Your task to perform on an android device: turn off translation in the chrome app Image 0: 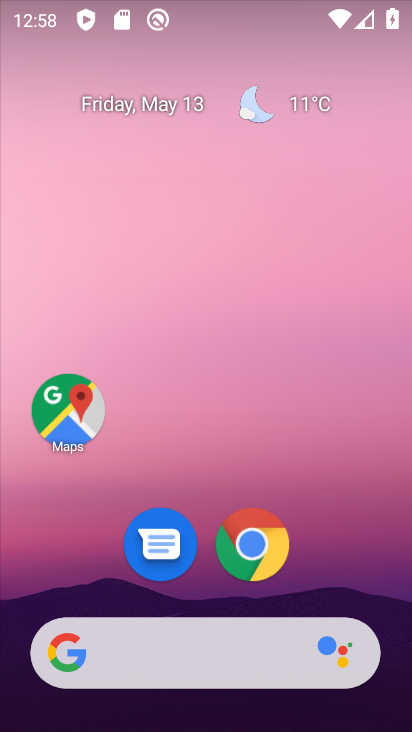
Step 0: click (245, 545)
Your task to perform on an android device: turn off translation in the chrome app Image 1: 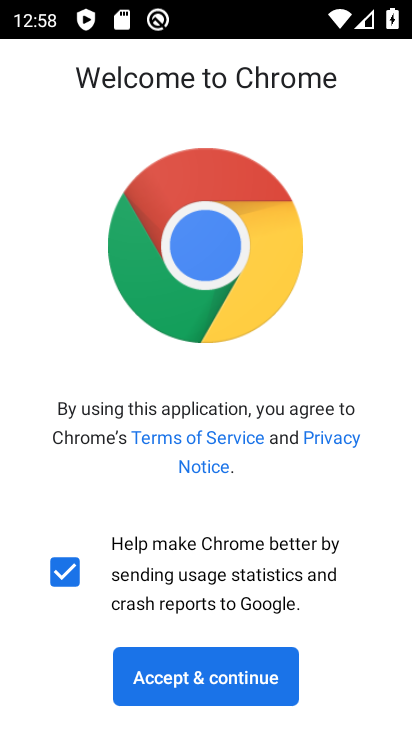
Step 1: click (239, 671)
Your task to perform on an android device: turn off translation in the chrome app Image 2: 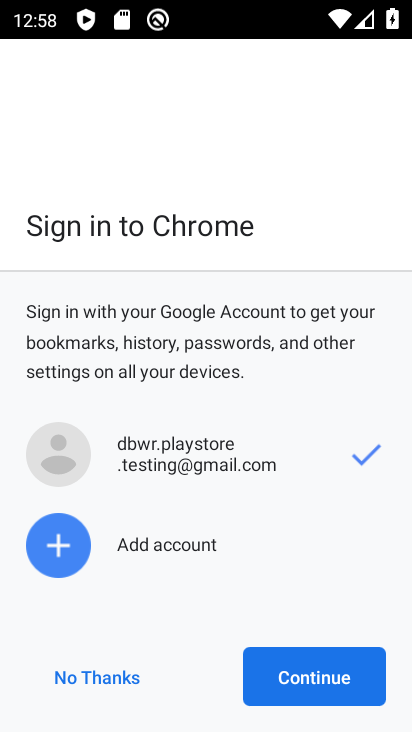
Step 2: click (345, 680)
Your task to perform on an android device: turn off translation in the chrome app Image 3: 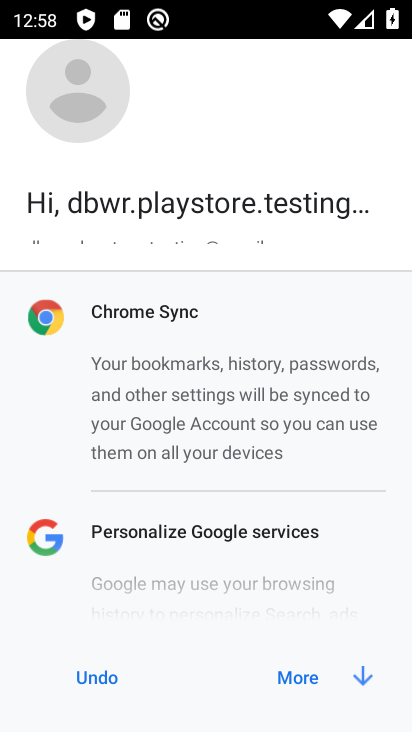
Step 3: click (336, 677)
Your task to perform on an android device: turn off translation in the chrome app Image 4: 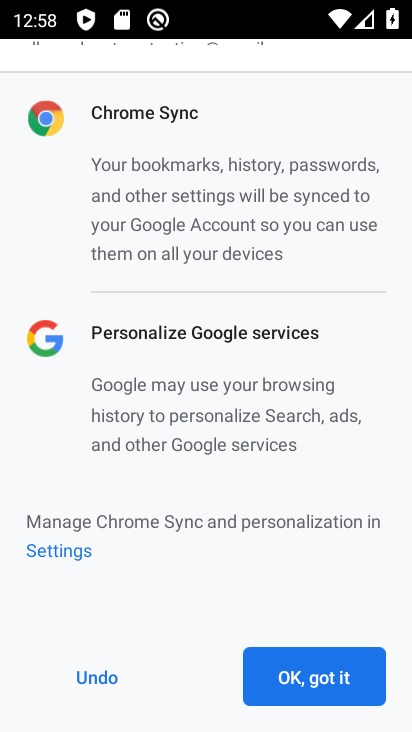
Step 4: click (326, 669)
Your task to perform on an android device: turn off translation in the chrome app Image 5: 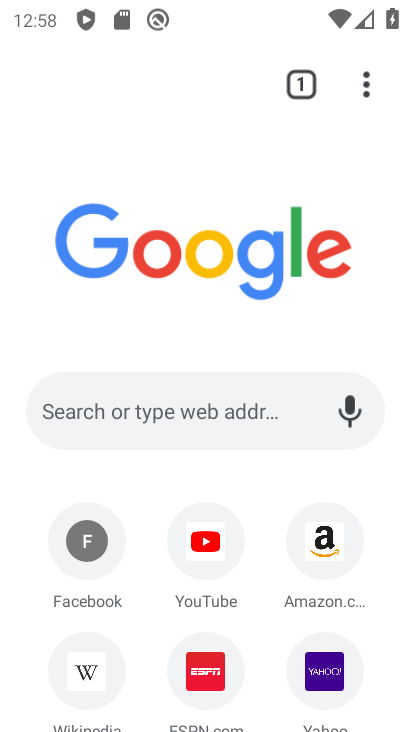
Step 5: click (370, 81)
Your task to perform on an android device: turn off translation in the chrome app Image 6: 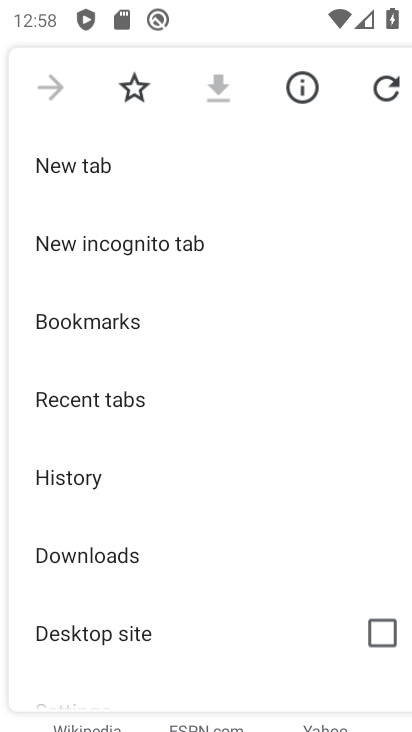
Step 6: drag from (167, 609) to (243, 250)
Your task to perform on an android device: turn off translation in the chrome app Image 7: 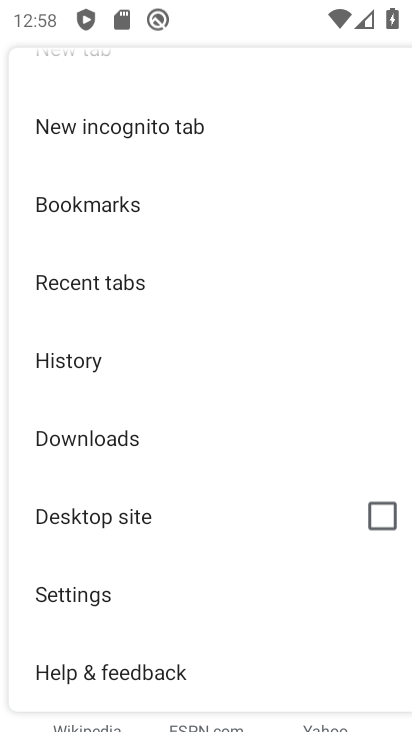
Step 7: click (102, 588)
Your task to perform on an android device: turn off translation in the chrome app Image 8: 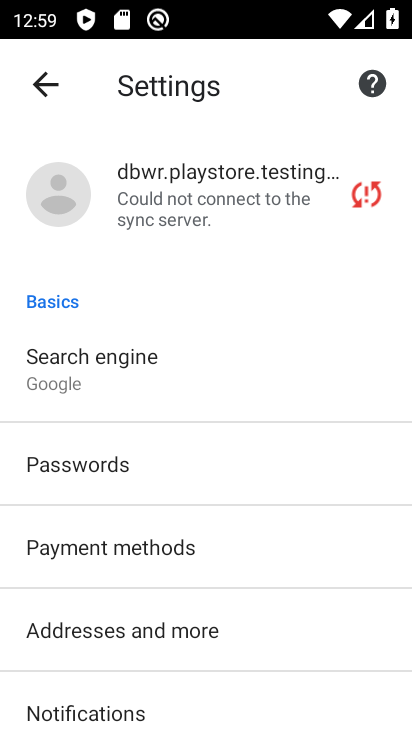
Step 8: drag from (151, 682) to (257, 284)
Your task to perform on an android device: turn off translation in the chrome app Image 9: 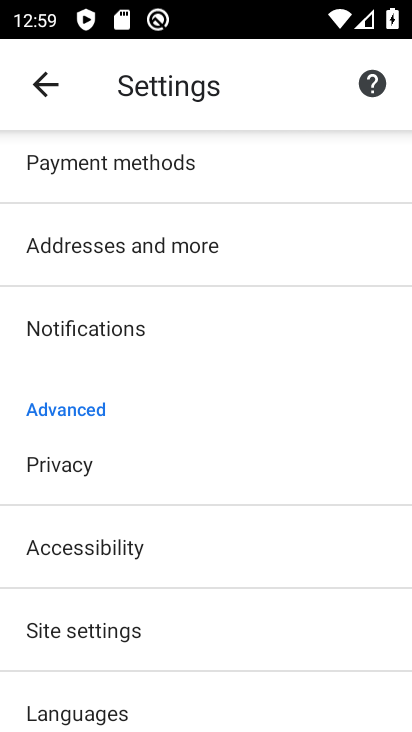
Step 9: drag from (195, 678) to (253, 381)
Your task to perform on an android device: turn off translation in the chrome app Image 10: 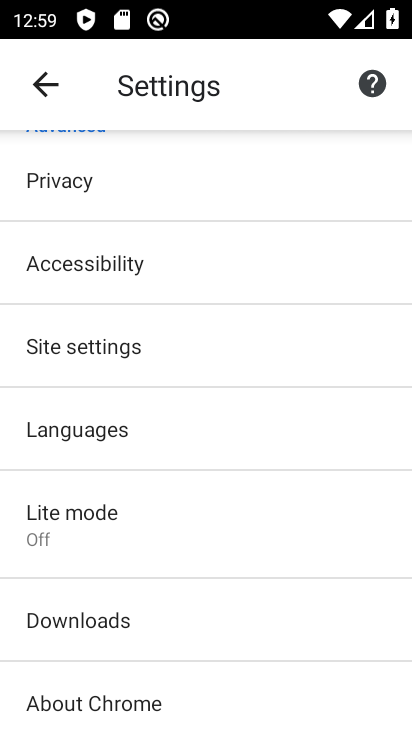
Step 10: click (98, 430)
Your task to perform on an android device: turn off translation in the chrome app Image 11: 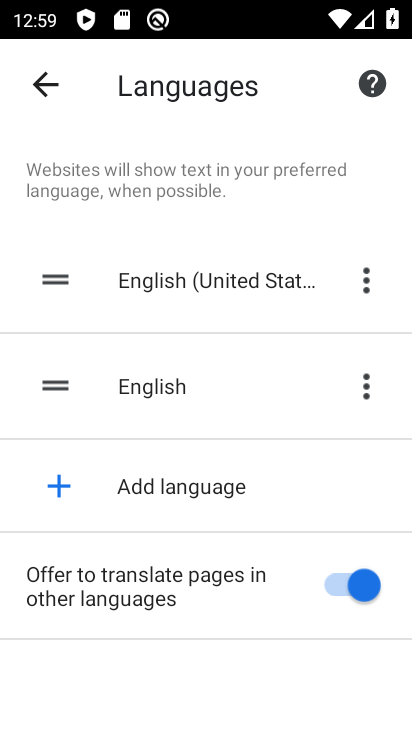
Step 11: click (344, 587)
Your task to perform on an android device: turn off translation in the chrome app Image 12: 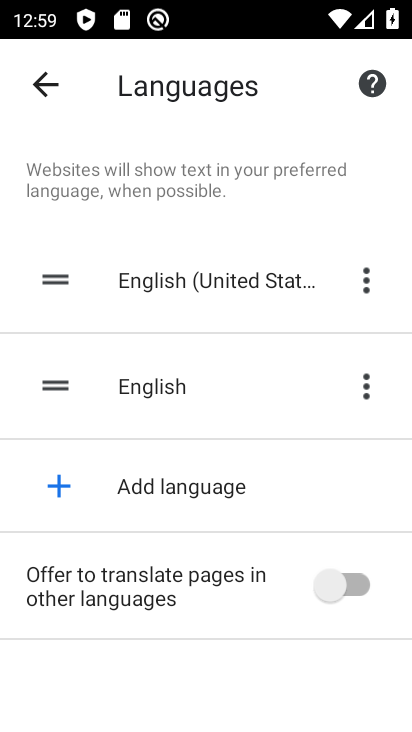
Step 12: task complete